Your task to perform on an android device: clear all cookies in the chrome app Image 0: 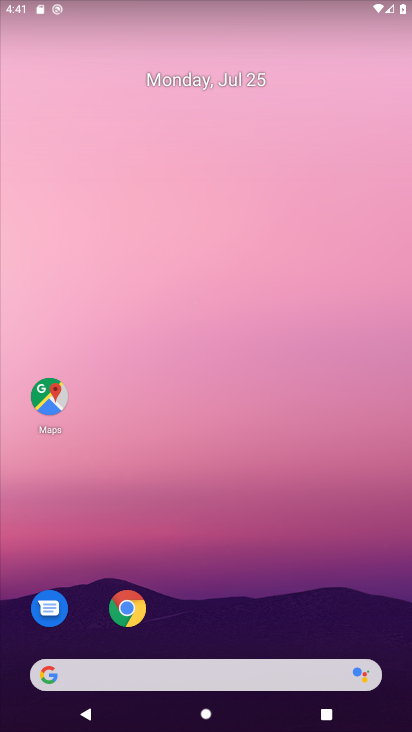
Step 0: click (136, 614)
Your task to perform on an android device: clear all cookies in the chrome app Image 1: 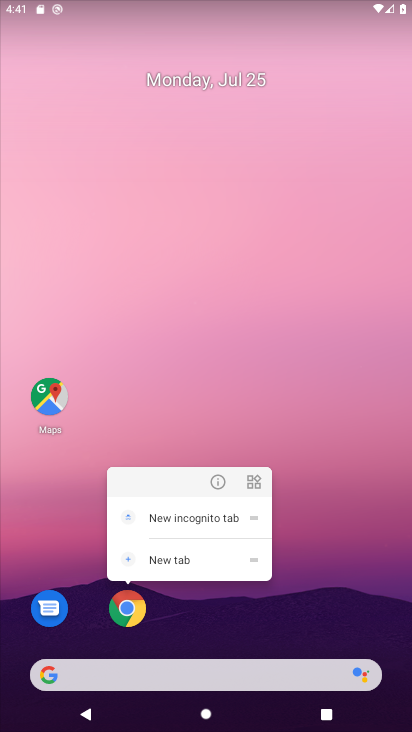
Step 1: click (131, 619)
Your task to perform on an android device: clear all cookies in the chrome app Image 2: 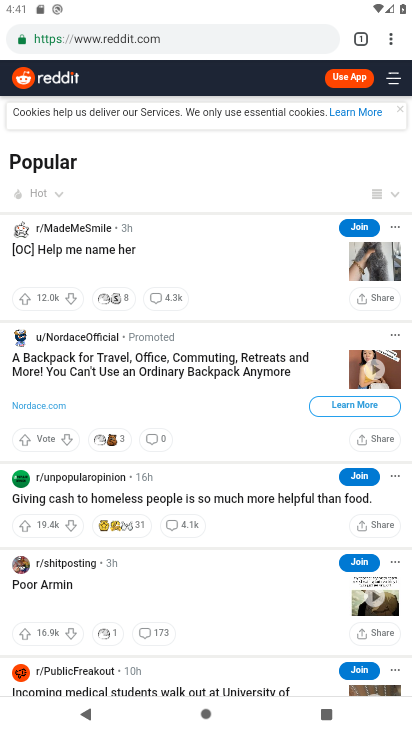
Step 2: click (391, 37)
Your task to perform on an android device: clear all cookies in the chrome app Image 3: 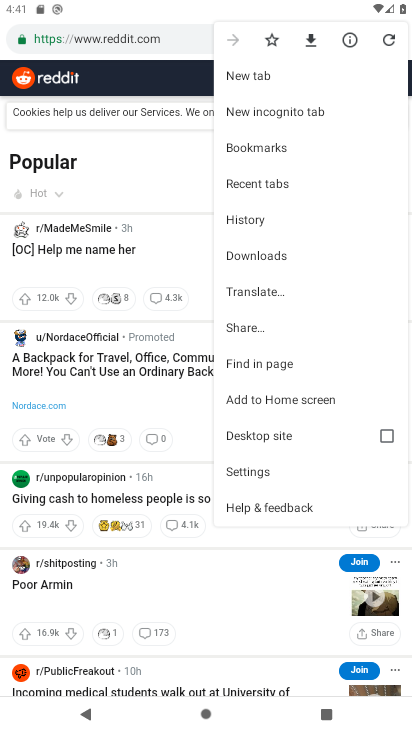
Step 3: click (251, 225)
Your task to perform on an android device: clear all cookies in the chrome app Image 4: 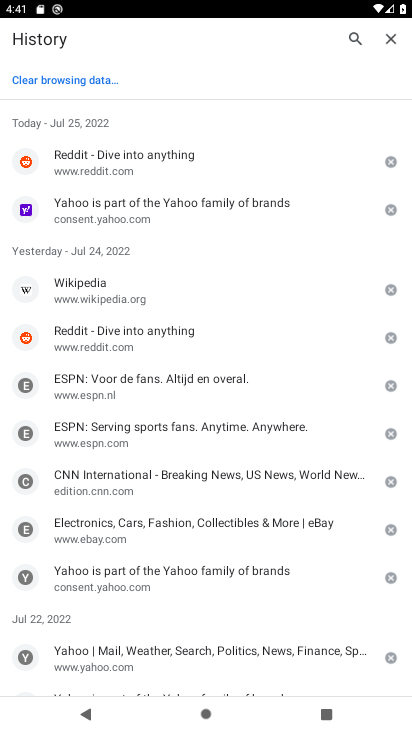
Step 4: click (80, 80)
Your task to perform on an android device: clear all cookies in the chrome app Image 5: 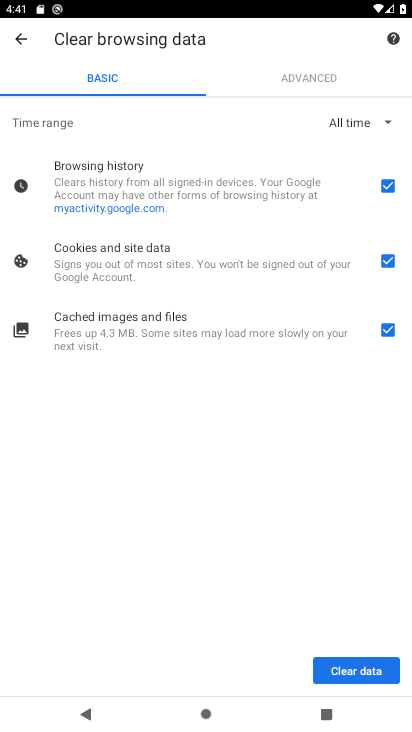
Step 5: click (385, 328)
Your task to perform on an android device: clear all cookies in the chrome app Image 6: 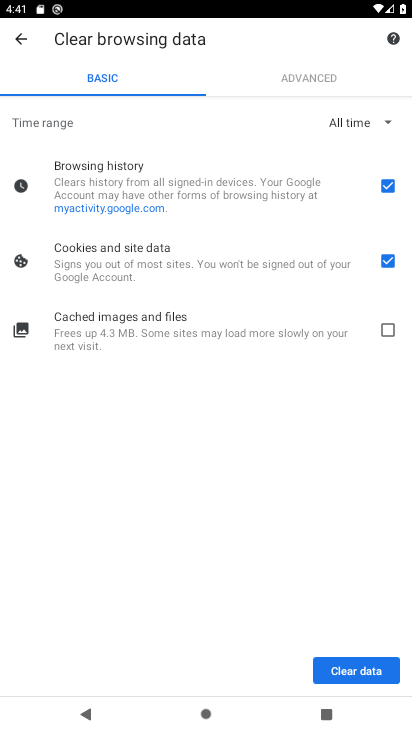
Step 6: click (378, 185)
Your task to perform on an android device: clear all cookies in the chrome app Image 7: 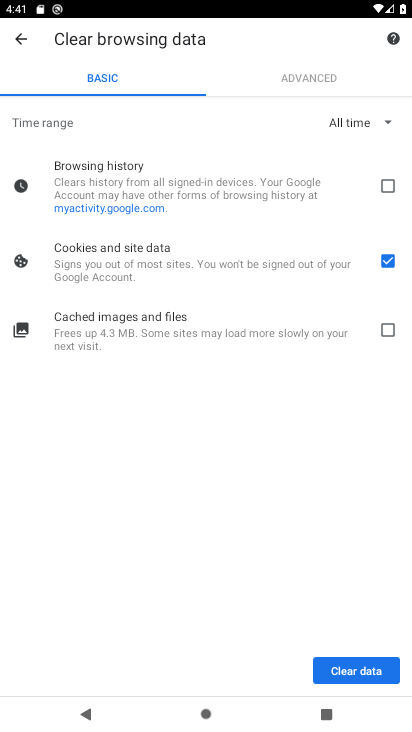
Step 7: click (348, 665)
Your task to perform on an android device: clear all cookies in the chrome app Image 8: 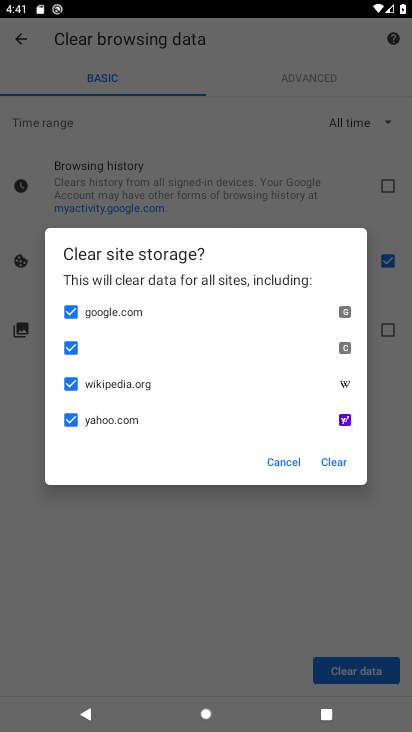
Step 8: click (332, 465)
Your task to perform on an android device: clear all cookies in the chrome app Image 9: 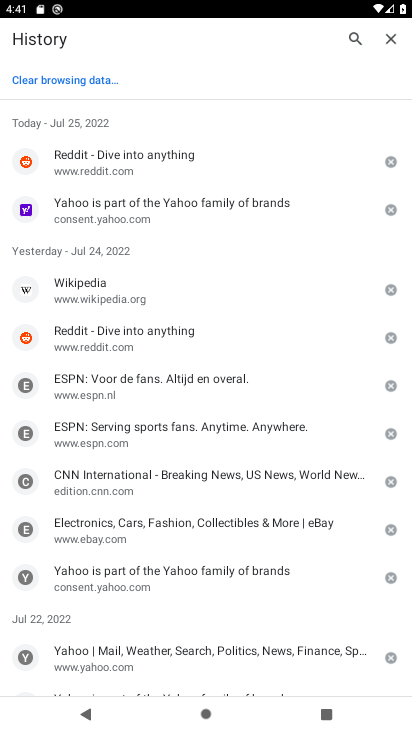
Step 9: task complete